Your task to perform on an android device: toggle translation in the chrome app Image 0: 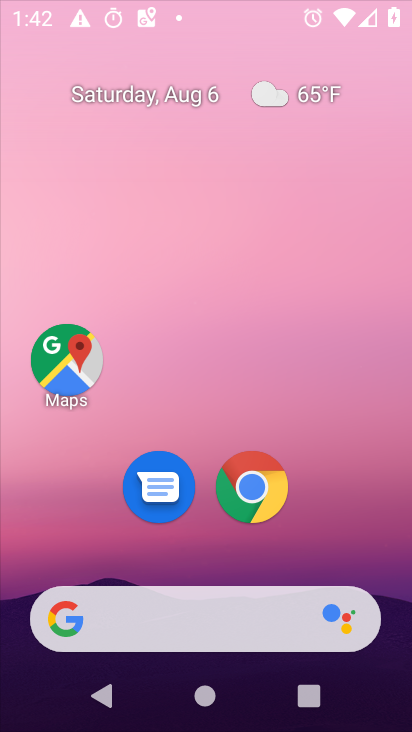
Step 0: click (249, 473)
Your task to perform on an android device: toggle translation in the chrome app Image 1: 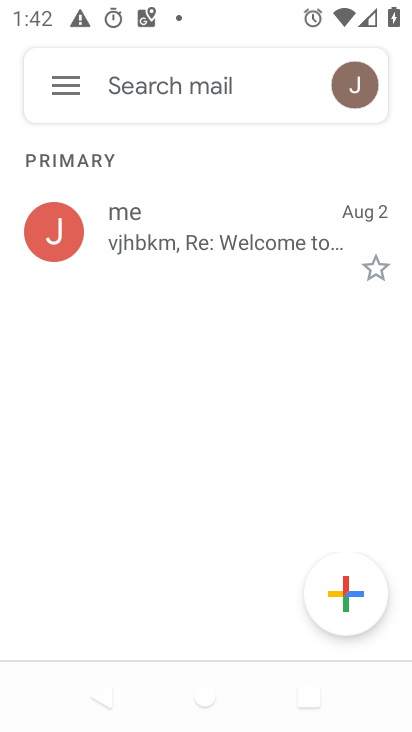
Step 1: press back button
Your task to perform on an android device: toggle translation in the chrome app Image 2: 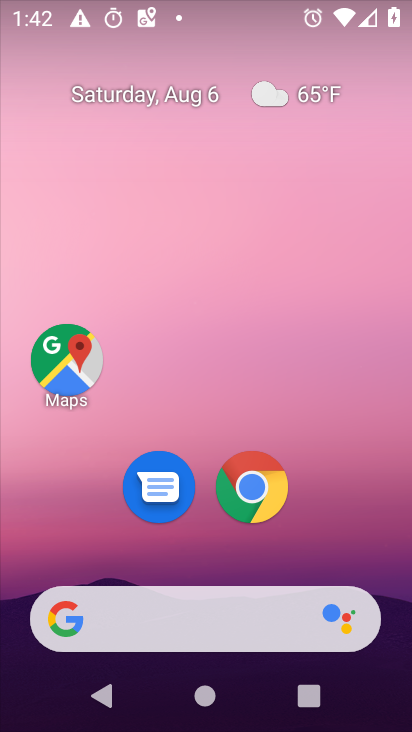
Step 2: click (253, 487)
Your task to perform on an android device: toggle translation in the chrome app Image 3: 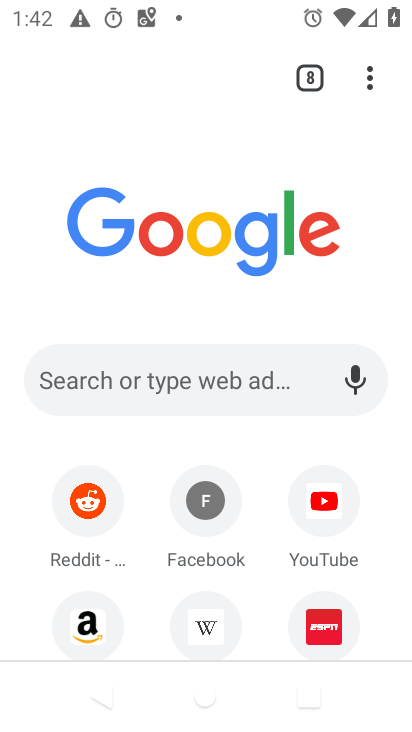
Step 3: drag from (367, 79) to (101, 539)
Your task to perform on an android device: toggle translation in the chrome app Image 4: 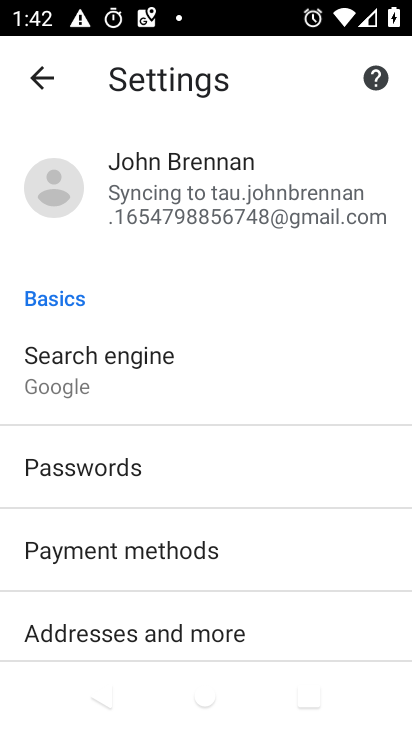
Step 4: drag from (124, 654) to (212, 125)
Your task to perform on an android device: toggle translation in the chrome app Image 5: 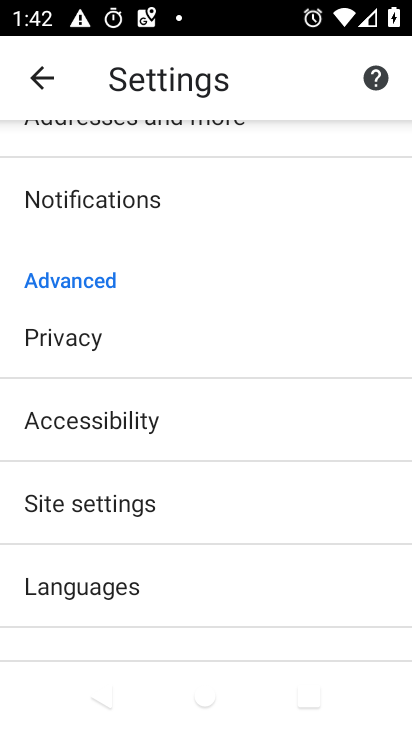
Step 5: click (63, 583)
Your task to perform on an android device: toggle translation in the chrome app Image 6: 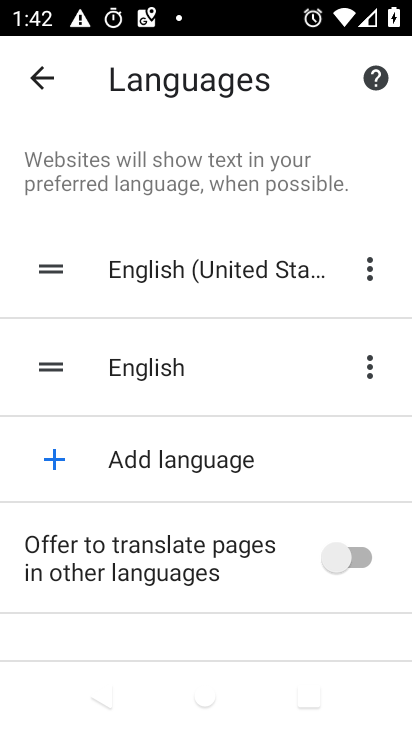
Step 6: click (319, 544)
Your task to perform on an android device: toggle translation in the chrome app Image 7: 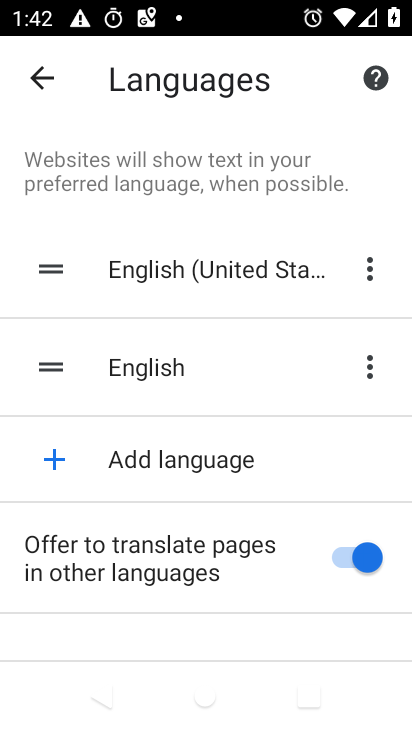
Step 7: task complete